Your task to perform on an android device: change the clock style Image 0: 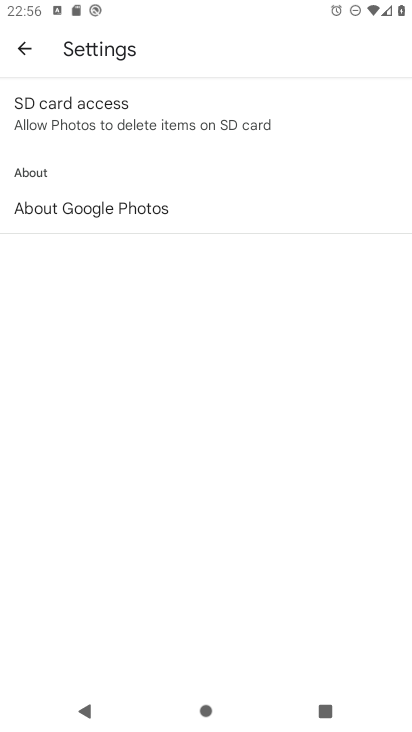
Step 0: press home button
Your task to perform on an android device: change the clock style Image 1: 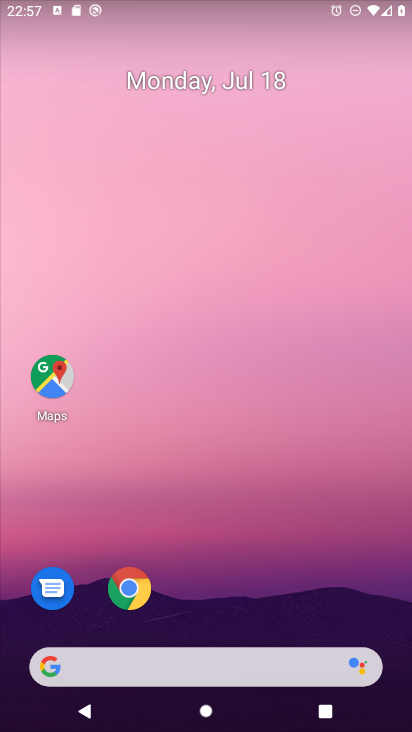
Step 1: drag from (369, 617) to (312, 170)
Your task to perform on an android device: change the clock style Image 2: 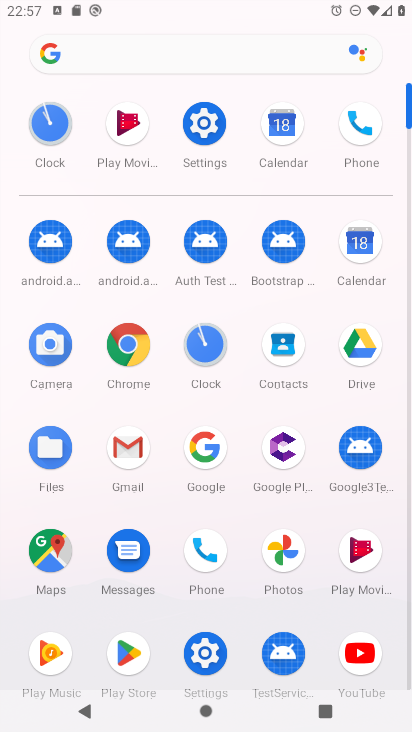
Step 2: click (207, 342)
Your task to perform on an android device: change the clock style Image 3: 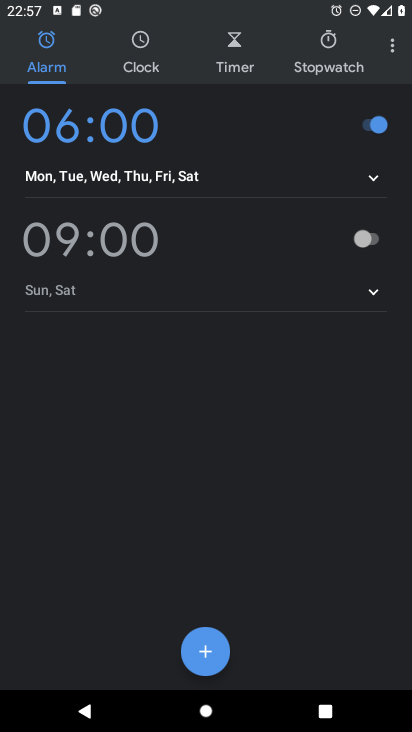
Step 3: click (393, 49)
Your task to perform on an android device: change the clock style Image 4: 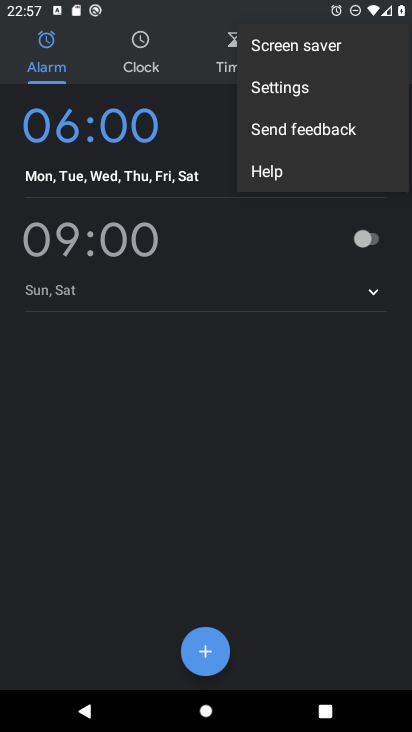
Step 4: click (287, 85)
Your task to perform on an android device: change the clock style Image 5: 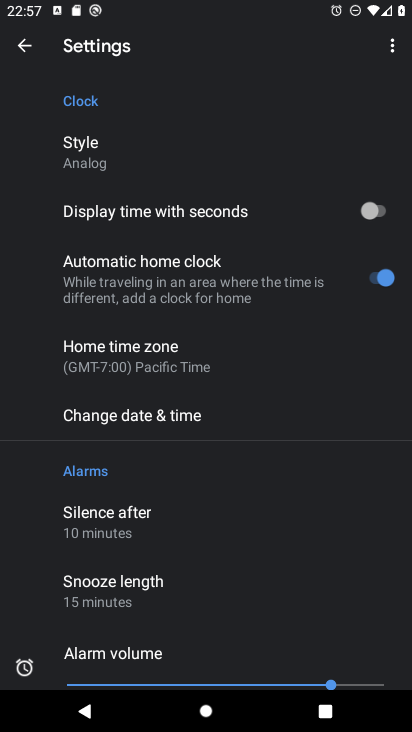
Step 5: click (81, 150)
Your task to perform on an android device: change the clock style Image 6: 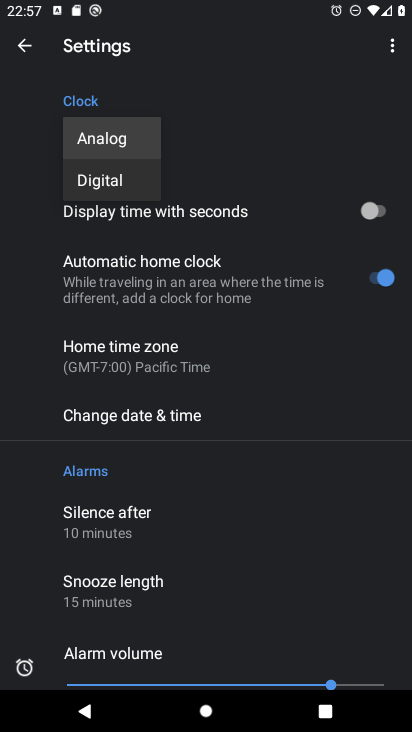
Step 6: click (98, 174)
Your task to perform on an android device: change the clock style Image 7: 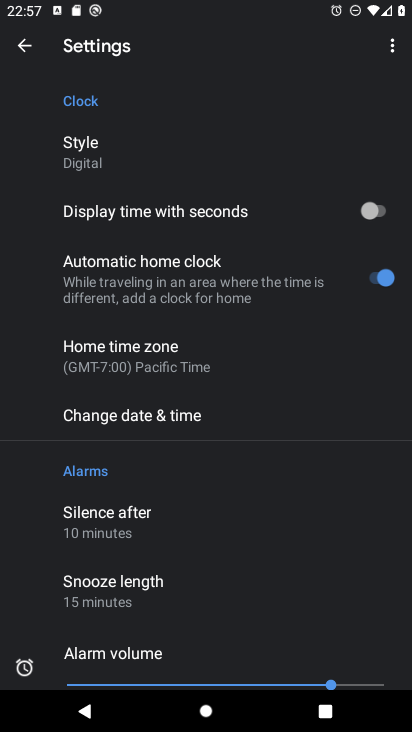
Step 7: task complete